Your task to perform on an android device: Open Chrome and go to settings Image 0: 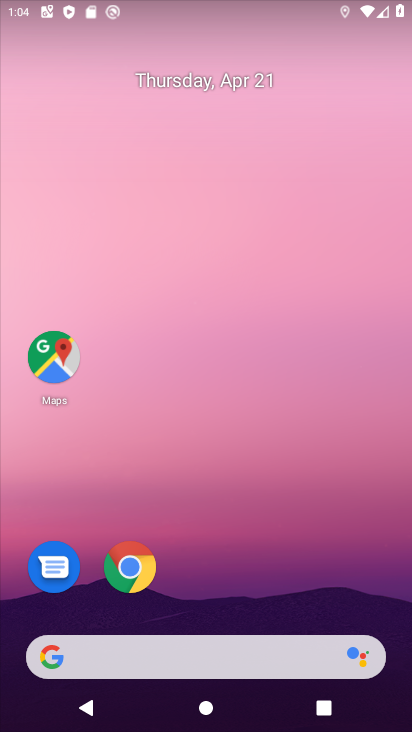
Step 0: click (266, 46)
Your task to perform on an android device: Open Chrome and go to settings Image 1: 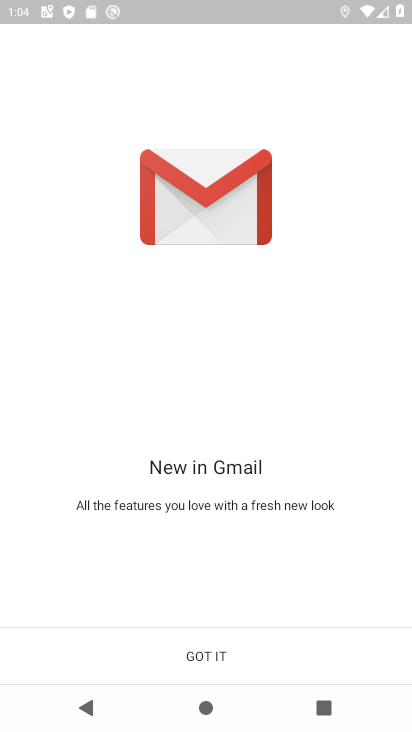
Step 1: press back button
Your task to perform on an android device: Open Chrome and go to settings Image 2: 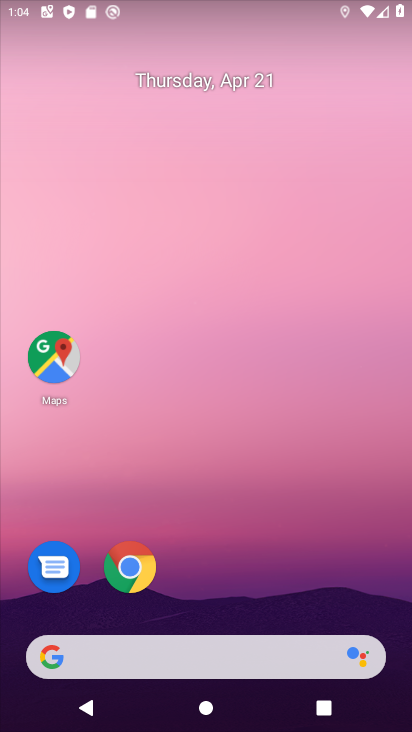
Step 2: click (138, 568)
Your task to perform on an android device: Open Chrome and go to settings Image 3: 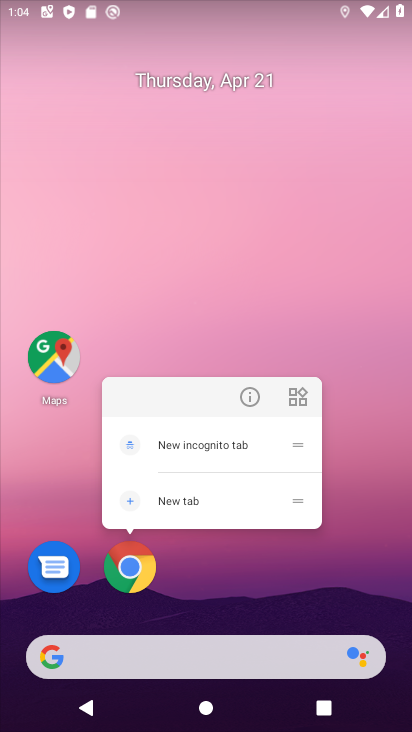
Step 3: click (129, 562)
Your task to perform on an android device: Open Chrome and go to settings Image 4: 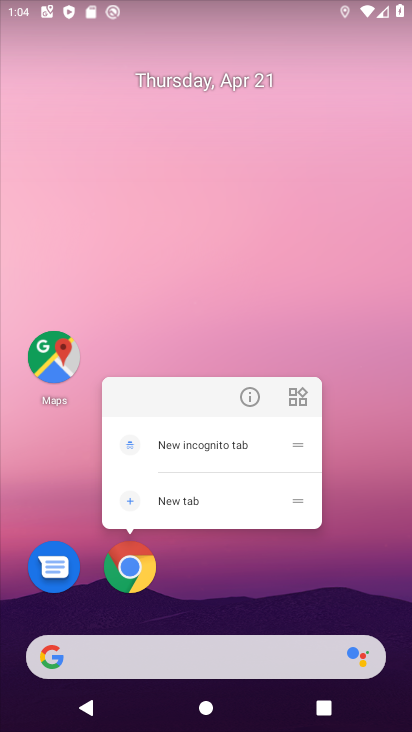
Step 4: click (129, 566)
Your task to perform on an android device: Open Chrome and go to settings Image 5: 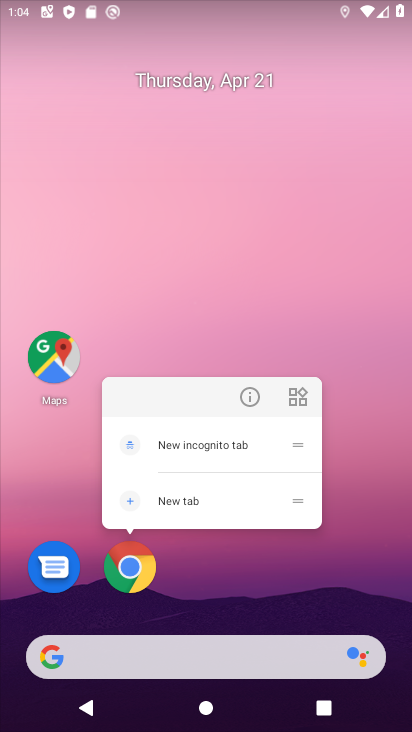
Step 5: click (134, 567)
Your task to perform on an android device: Open Chrome and go to settings Image 6: 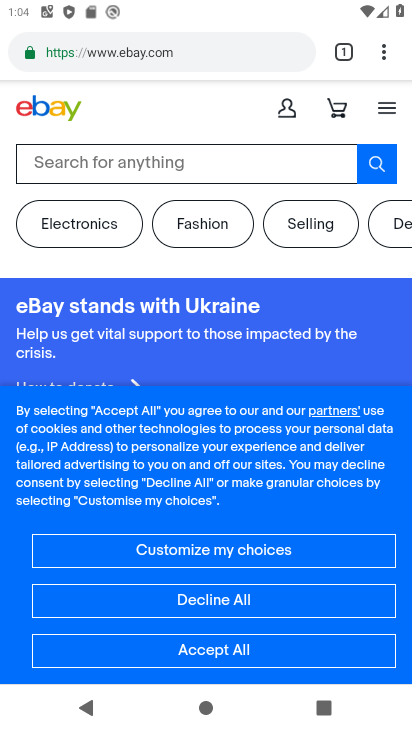
Step 6: task complete